Your task to perform on an android device: turn off location Image 0: 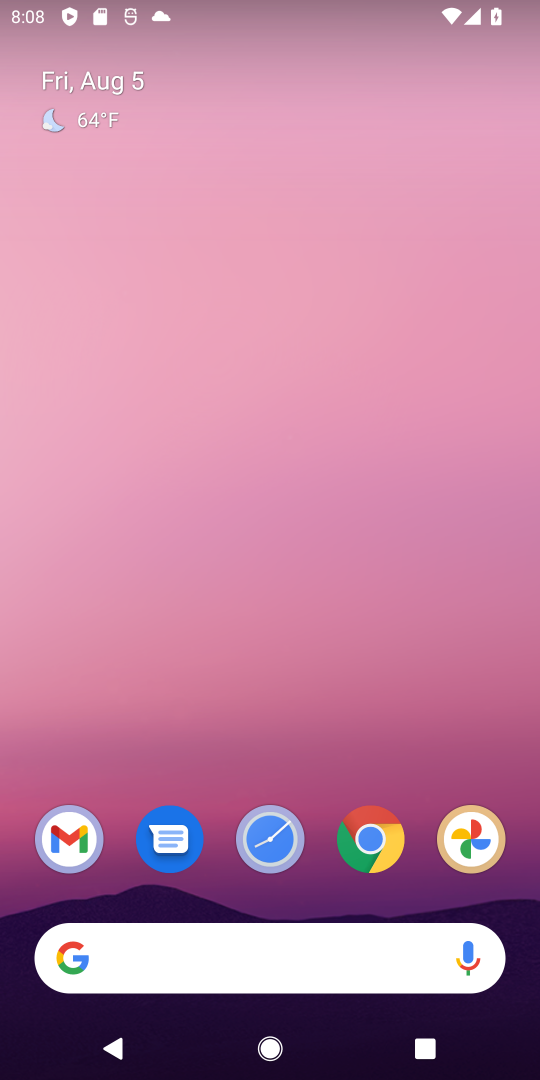
Step 0: drag from (332, 897) to (331, 381)
Your task to perform on an android device: turn off location Image 1: 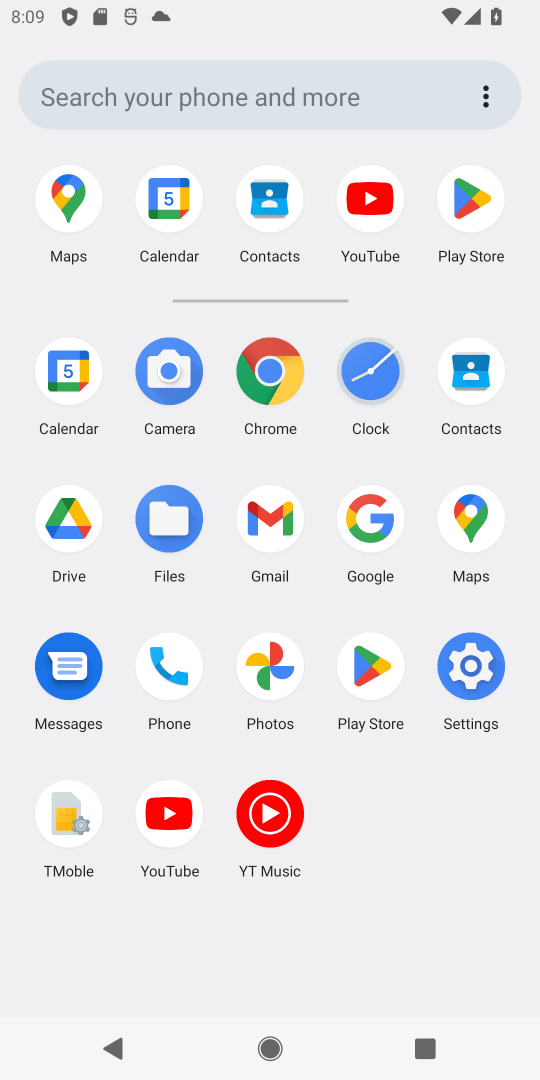
Step 1: click (482, 666)
Your task to perform on an android device: turn off location Image 2: 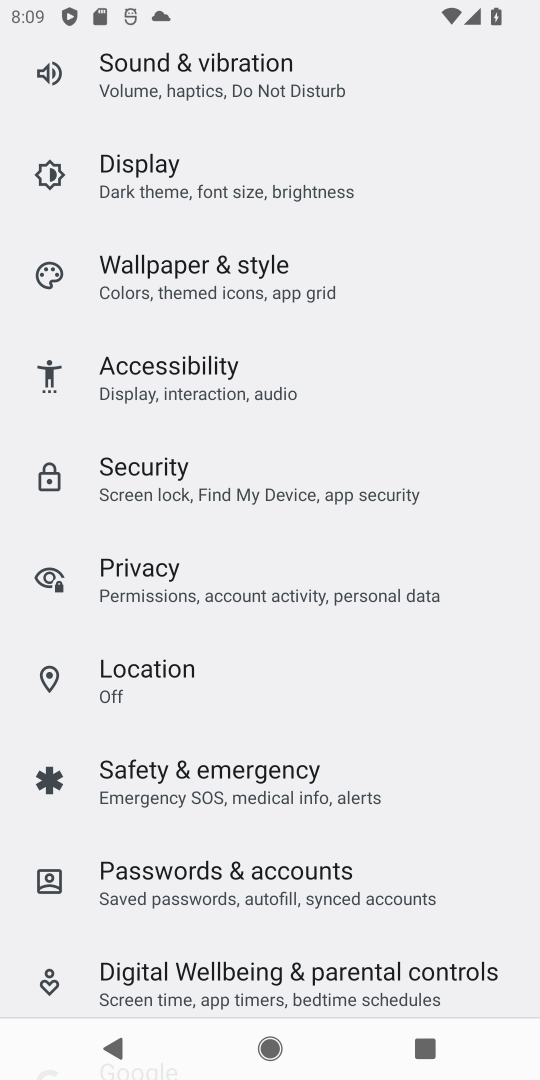
Step 2: drag from (242, 239) to (215, 751)
Your task to perform on an android device: turn off location Image 3: 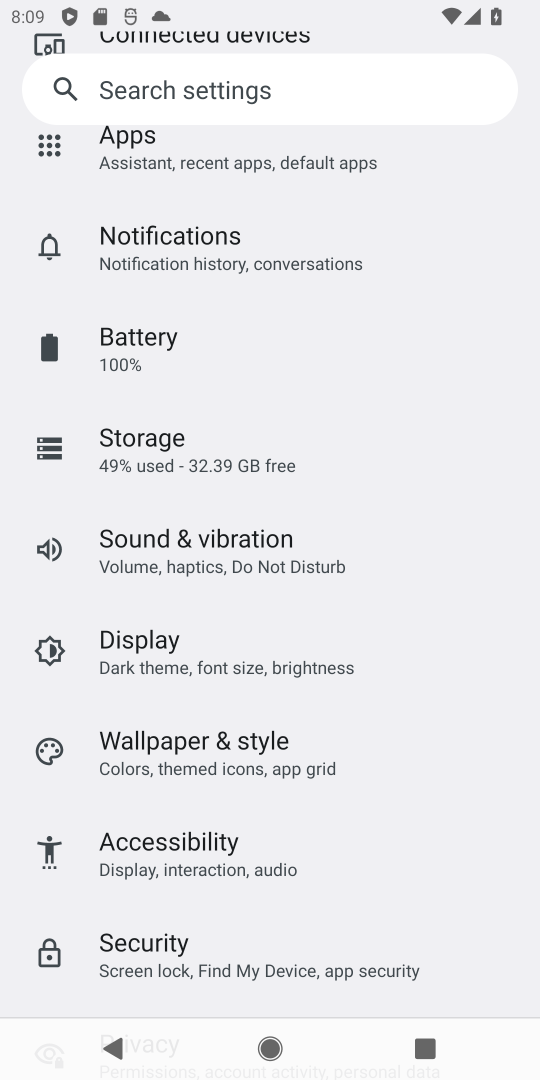
Step 3: drag from (142, 420) to (132, 742)
Your task to perform on an android device: turn off location Image 4: 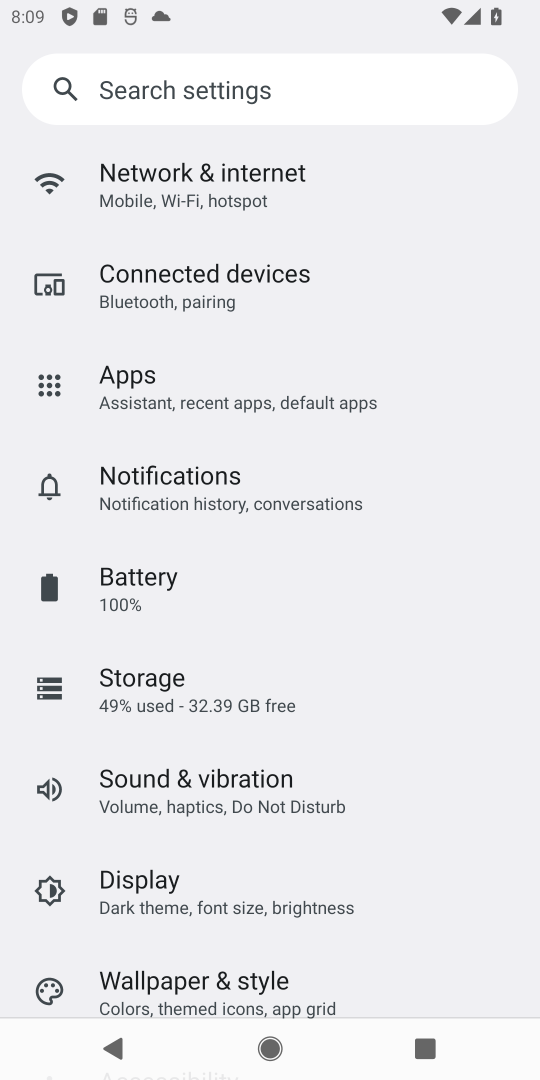
Step 4: drag from (154, 276) to (136, 760)
Your task to perform on an android device: turn off location Image 5: 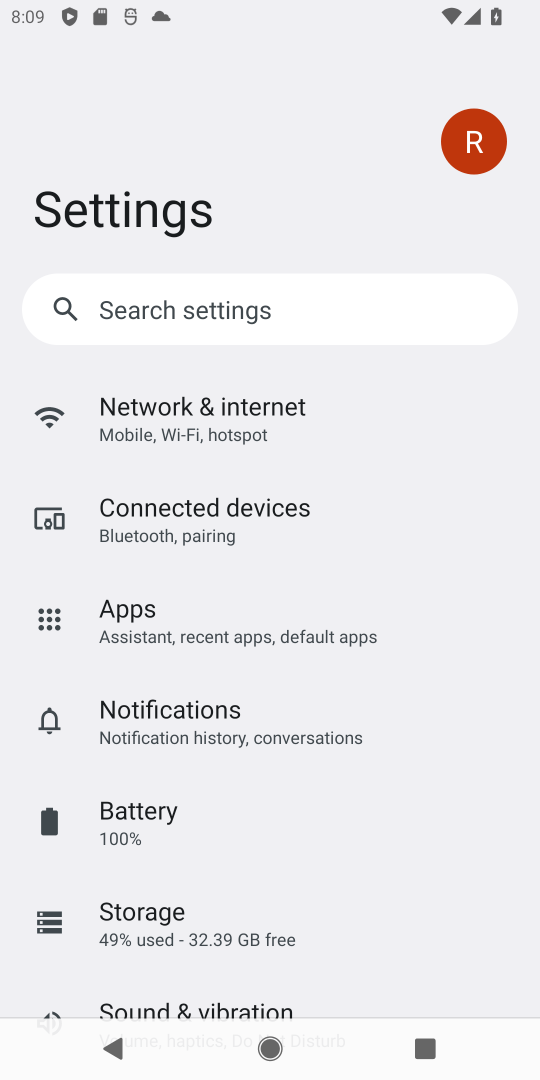
Step 5: drag from (125, 903) to (143, 538)
Your task to perform on an android device: turn off location Image 6: 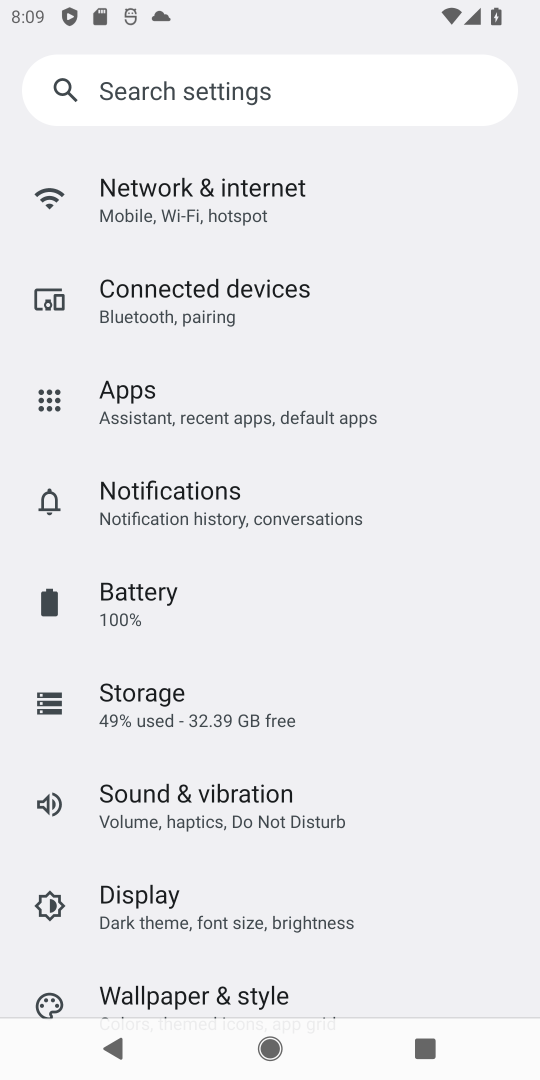
Step 6: drag from (197, 931) to (202, 533)
Your task to perform on an android device: turn off location Image 7: 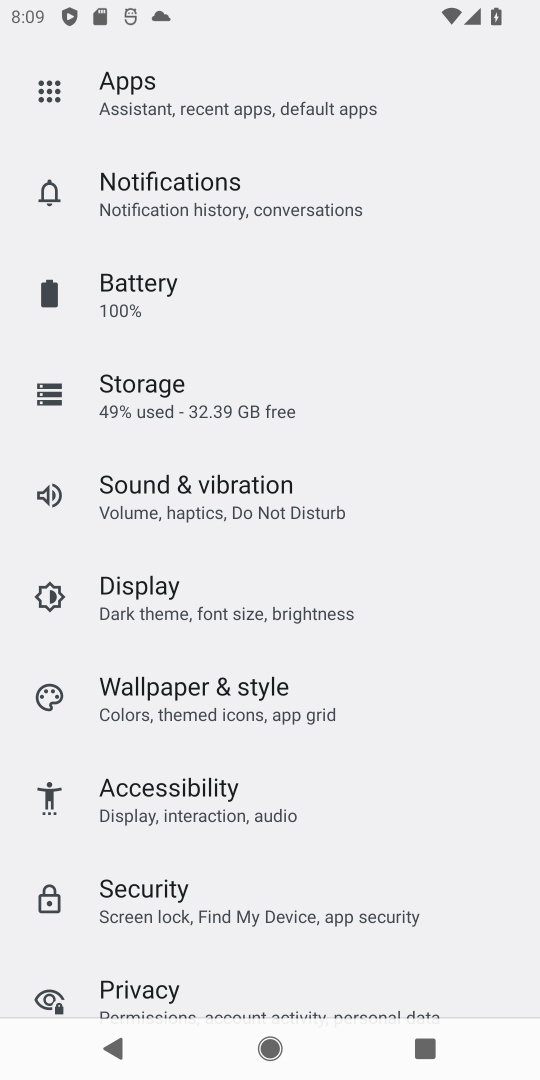
Step 7: drag from (186, 956) to (186, 730)
Your task to perform on an android device: turn off location Image 8: 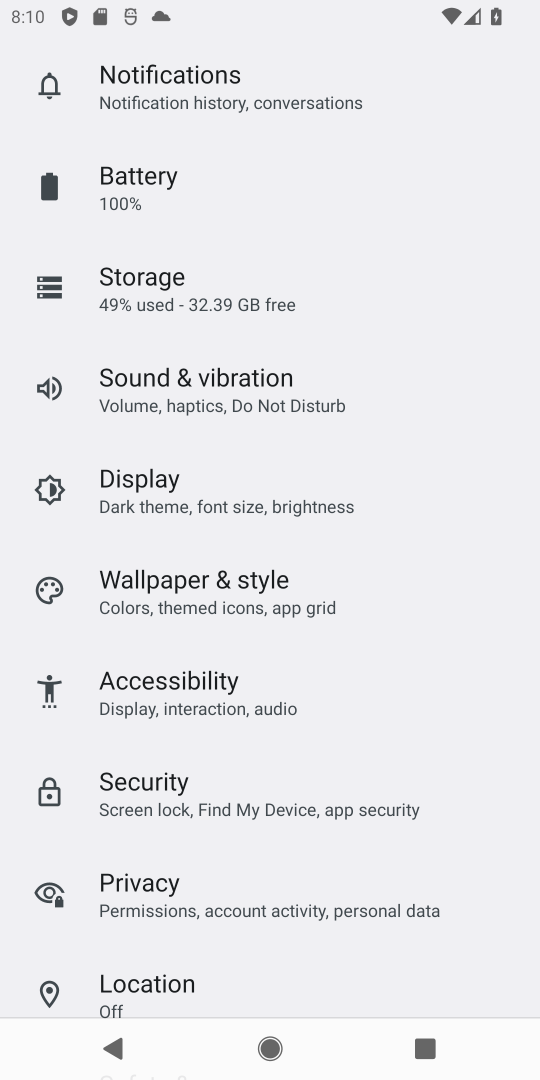
Step 8: click (159, 976)
Your task to perform on an android device: turn off location Image 9: 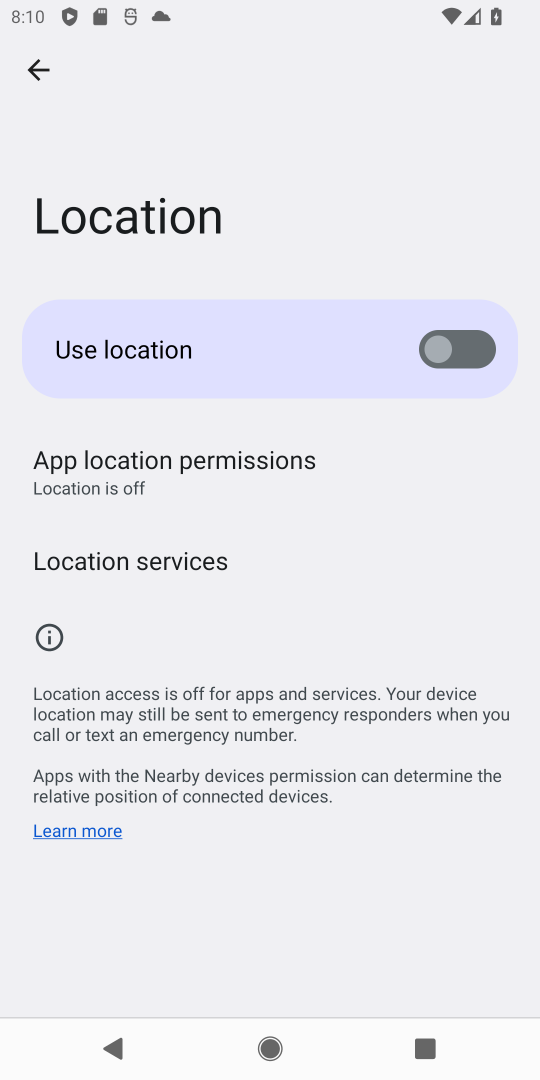
Step 9: task complete